Your task to perform on an android device: change the clock display to analog Image 0: 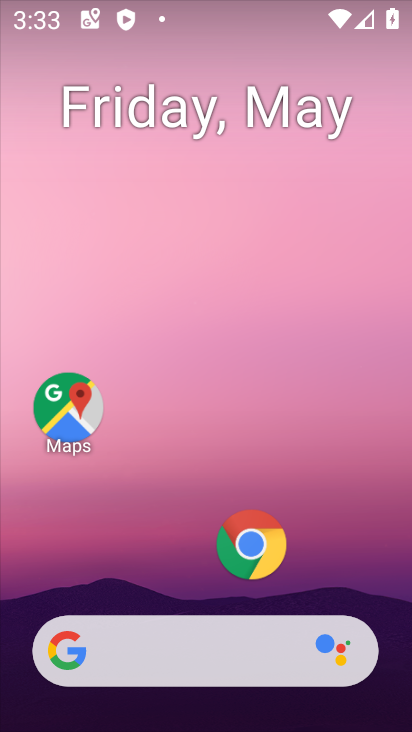
Step 0: drag from (172, 594) to (236, 180)
Your task to perform on an android device: change the clock display to analog Image 1: 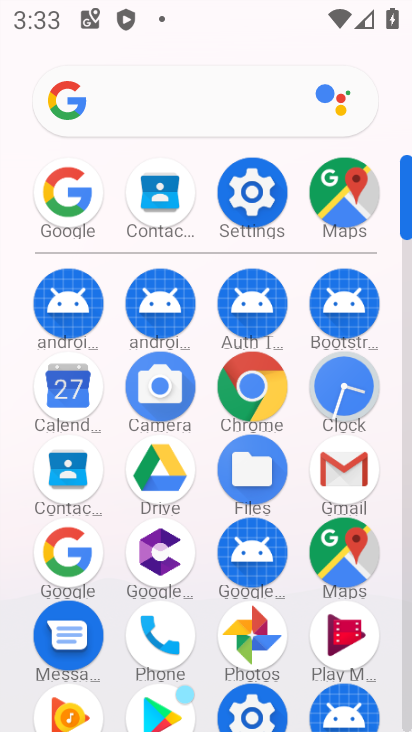
Step 1: click (339, 361)
Your task to perform on an android device: change the clock display to analog Image 2: 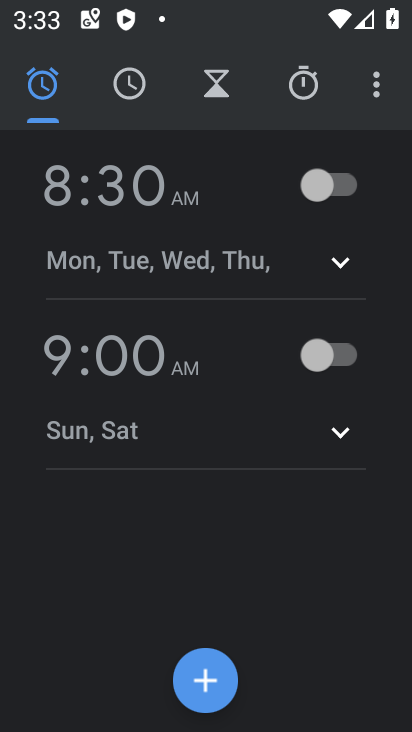
Step 2: click (379, 99)
Your task to perform on an android device: change the clock display to analog Image 3: 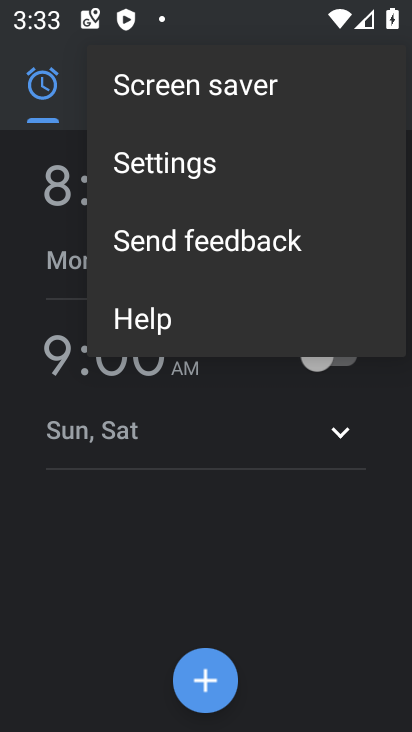
Step 3: click (256, 159)
Your task to perform on an android device: change the clock display to analog Image 4: 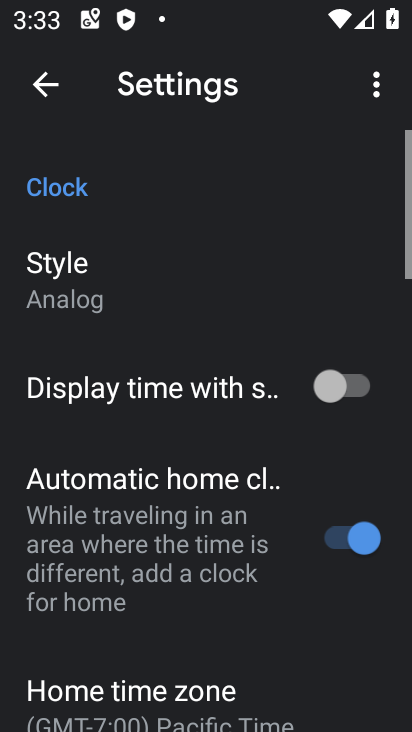
Step 4: click (125, 259)
Your task to perform on an android device: change the clock display to analog Image 5: 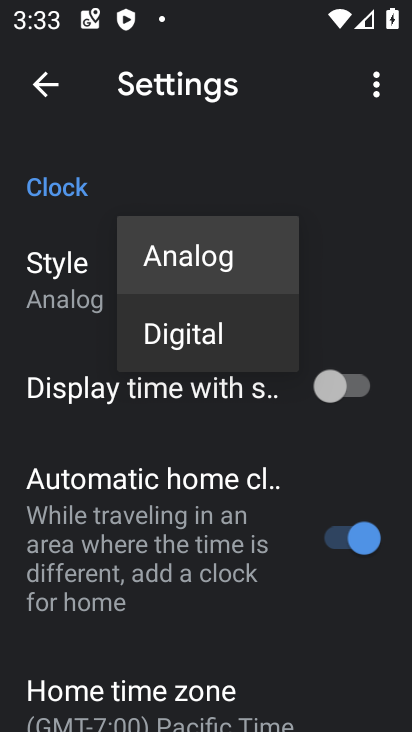
Step 5: task complete